Your task to perform on an android device: toggle javascript in the chrome app Image 0: 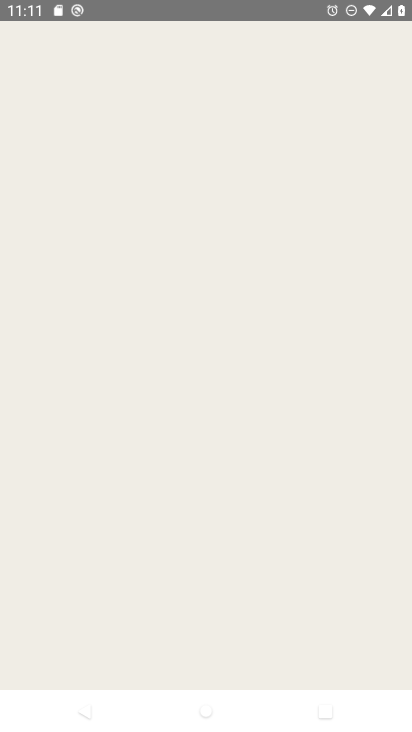
Step 0: press home button
Your task to perform on an android device: toggle javascript in the chrome app Image 1: 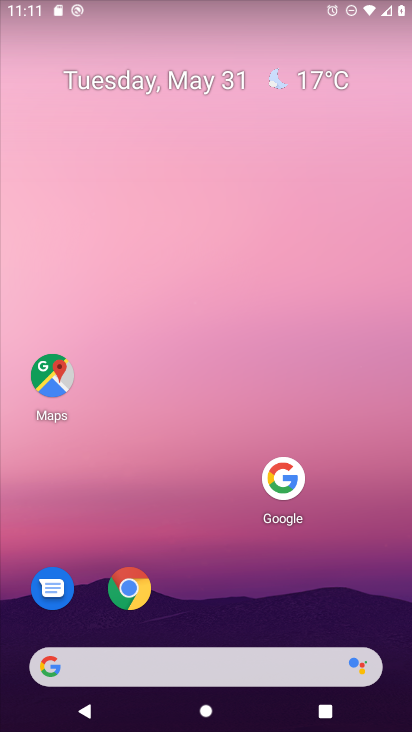
Step 1: click (133, 596)
Your task to perform on an android device: toggle javascript in the chrome app Image 2: 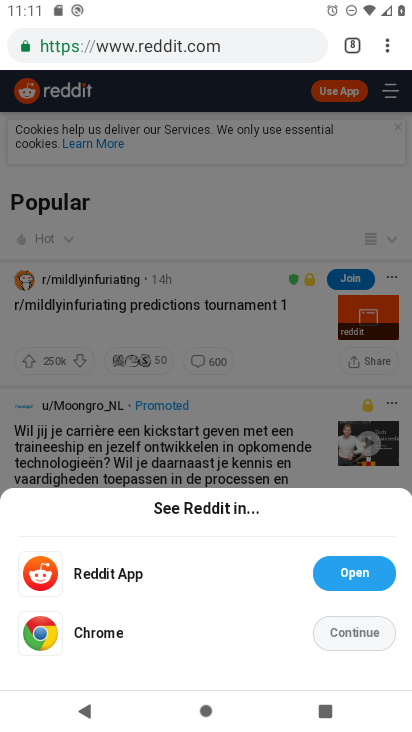
Step 2: drag from (384, 44) to (229, 547)
Your task to perform on an android device: toggle javascript in the chrome app Image 3: 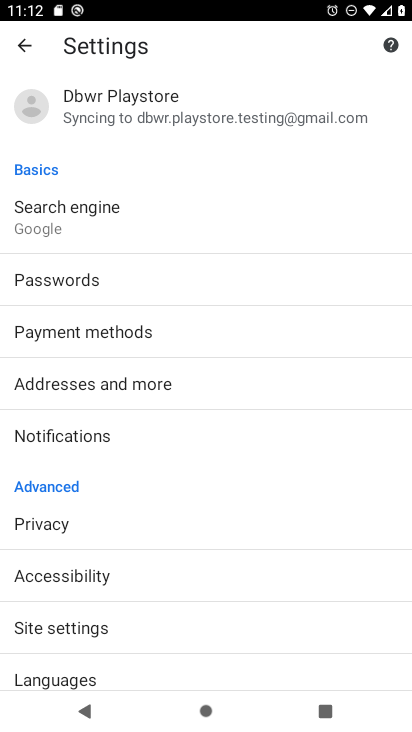
Step 3: click (107, 628)
Your task to perform on an android device: toggle javascript in the chrome app Image 4: 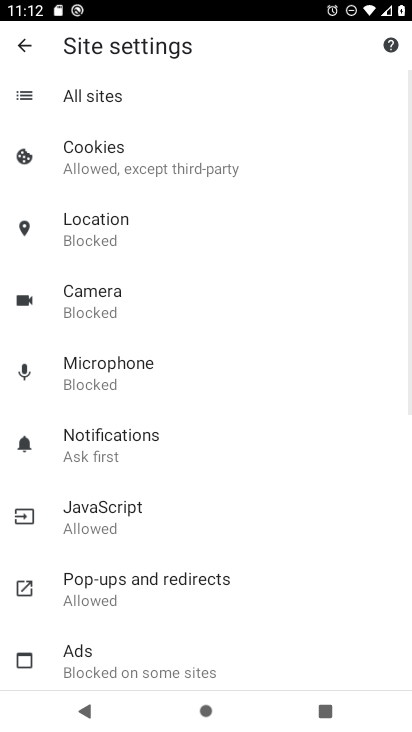
Step 4: click (112, 517)
Your task to perform on an android device: toggle javascript in the chrome app Image 5: 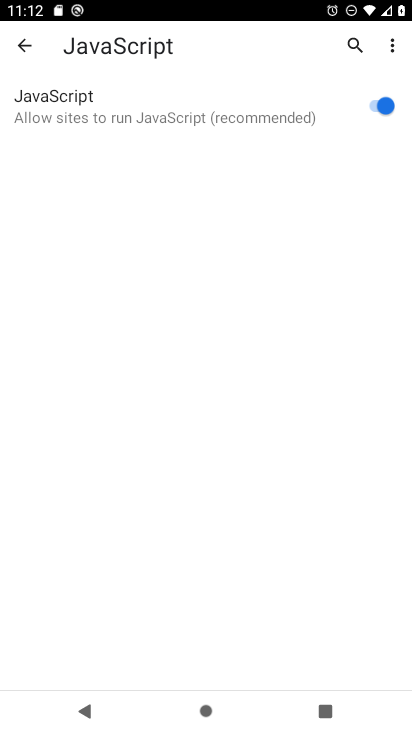
Step 5: click (377, 105)
Your task to perform on an android device: toggle javascript in the chrome app Image 6: 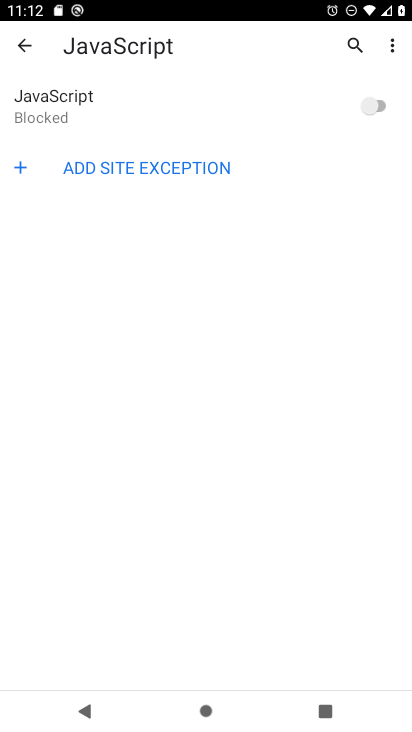
Step 6: task complete